Your task to perform on an android device: open app "Pinterest" Image 0: 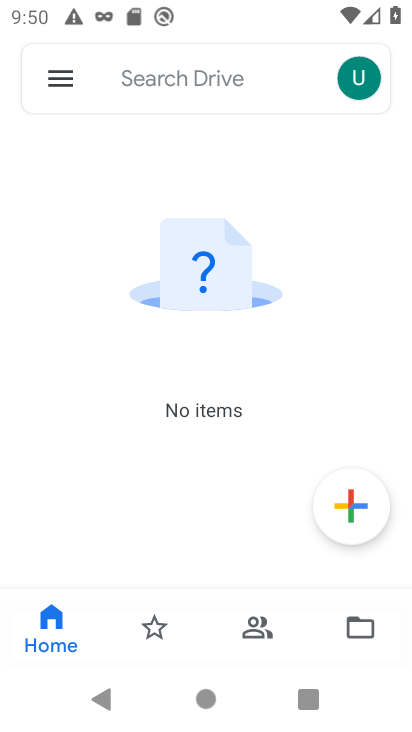
Step 0: press home button
Your task to perform on an android device: open app "Pinterest" Image 1: 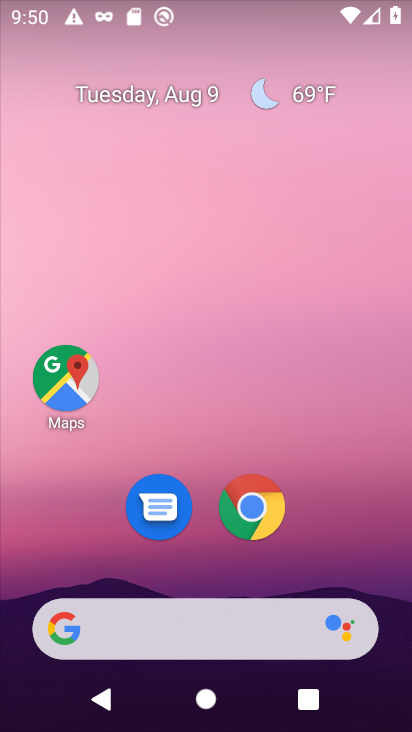
Step 1: drag from (211, 639) to (184, 159)
Your task to perform on an android device: open app "Pinterest" Image 2: 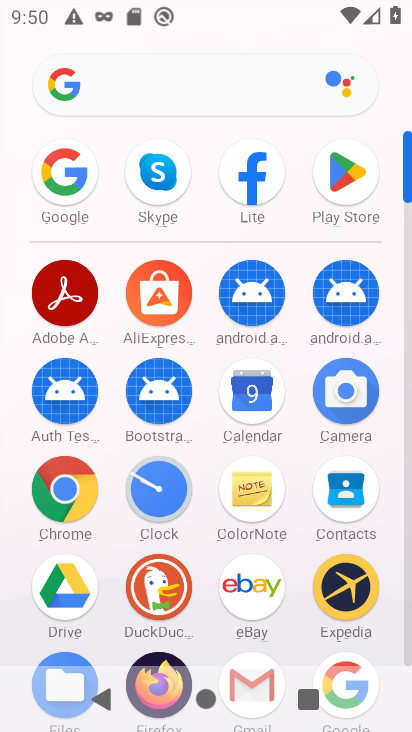
Step 2: click (346, 173)
Your task to perform on an android device: open app "Pinterest" Image 3: 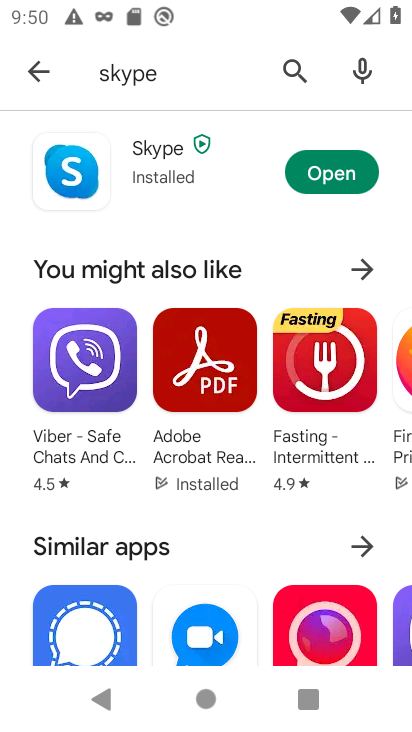
Step 3: click (296, 73)
Your task to perform on an android device: open app "Pinterest" Image 4: 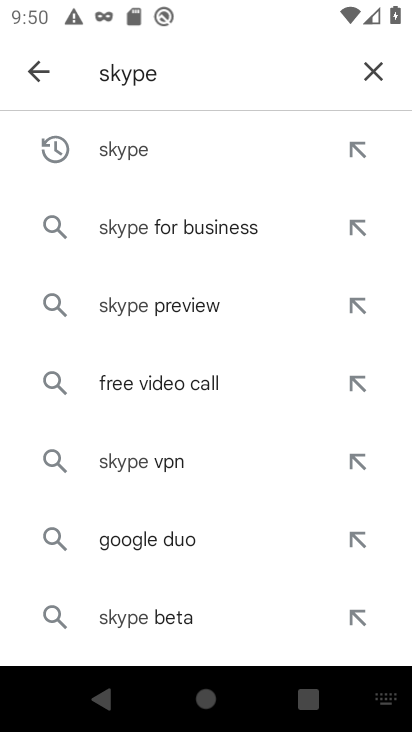
Step 4: click (375, 75)
Your task to perform on an android device: open app "Pinterest" Image 5: 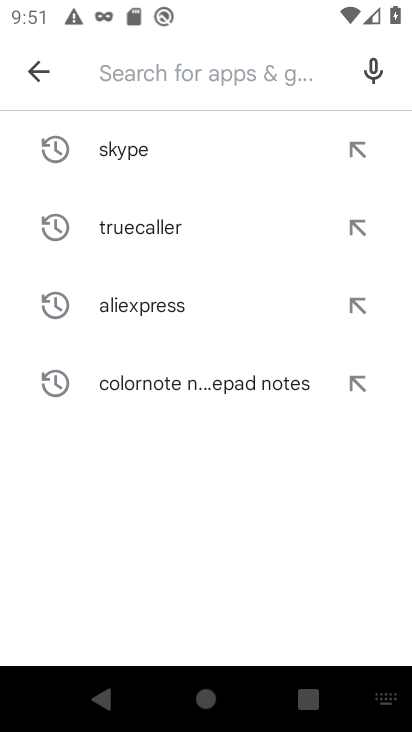
Step 5: type "Pinterest"
Your task to perform on an android device: open app "Pinterest" Image 6: 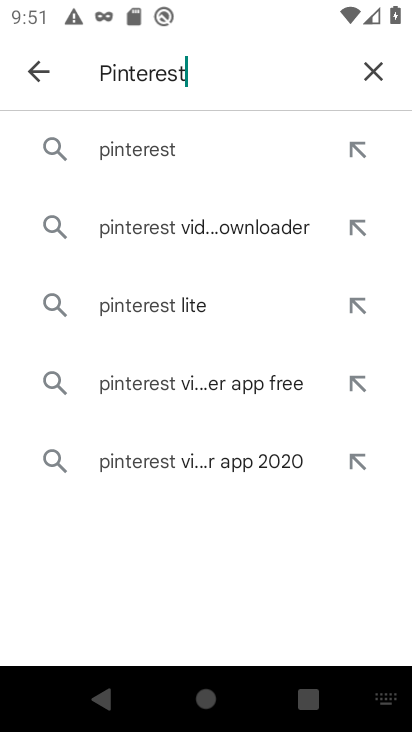
Step 6: click (161, 152)
Your task to perform on an android device: open app "Pinterest" Image 7: 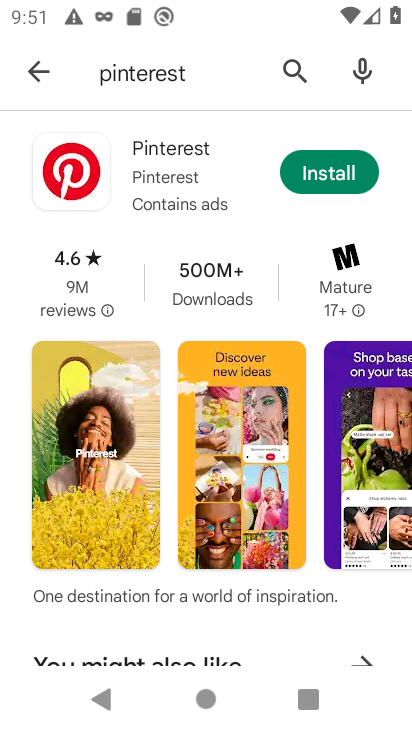
Step 7: task complete